Your task to perform on an android device: open app "Yahoo Mail" (install if not already installed), go to login, and select forgot password Image 0: 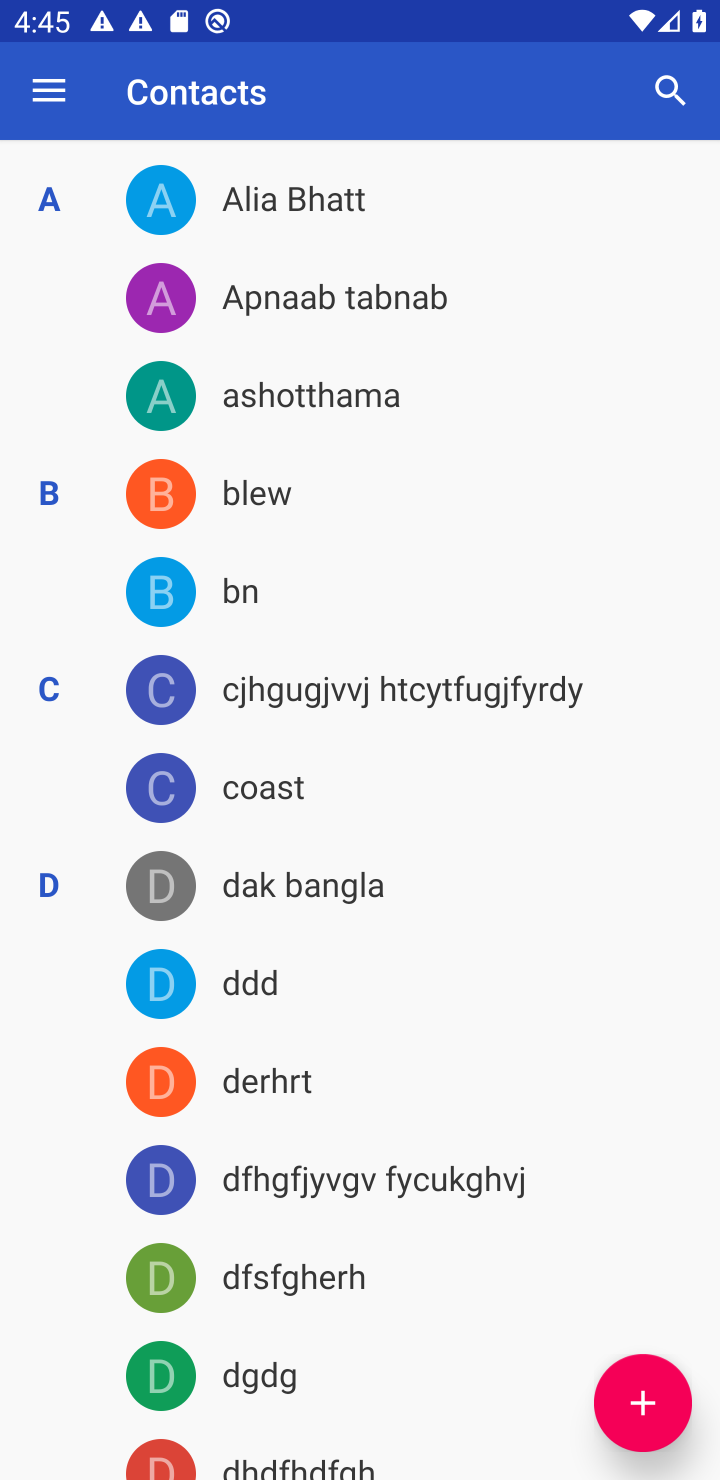
Step 0: press home button
Your task to perform on an android device: open app "Yahoo Mail" (install if not already installed), go to login, and select forgot password Image 1: 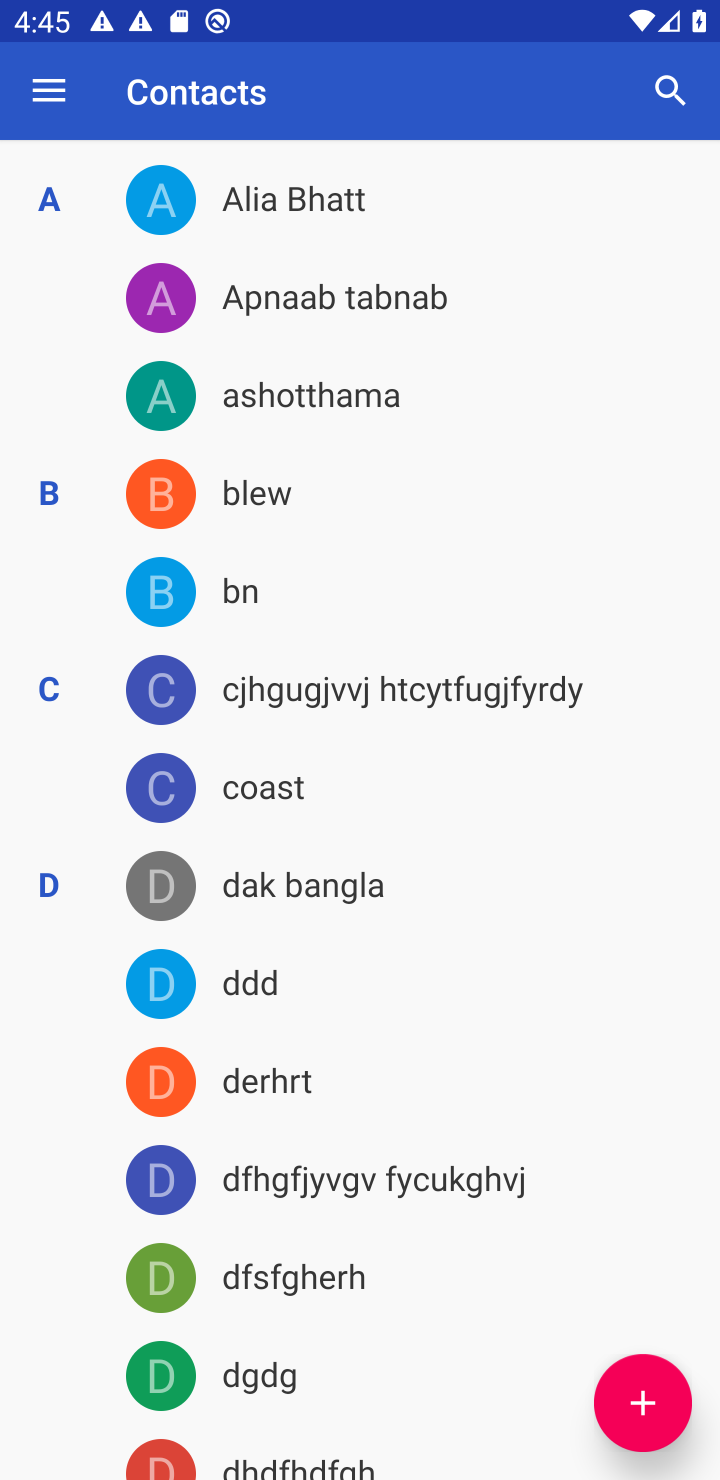
Step 1: press back button
Your task to perform on an android device: open app "Yahoo Mail" (install if not already installed), go to login, and select forgot password Image 2: 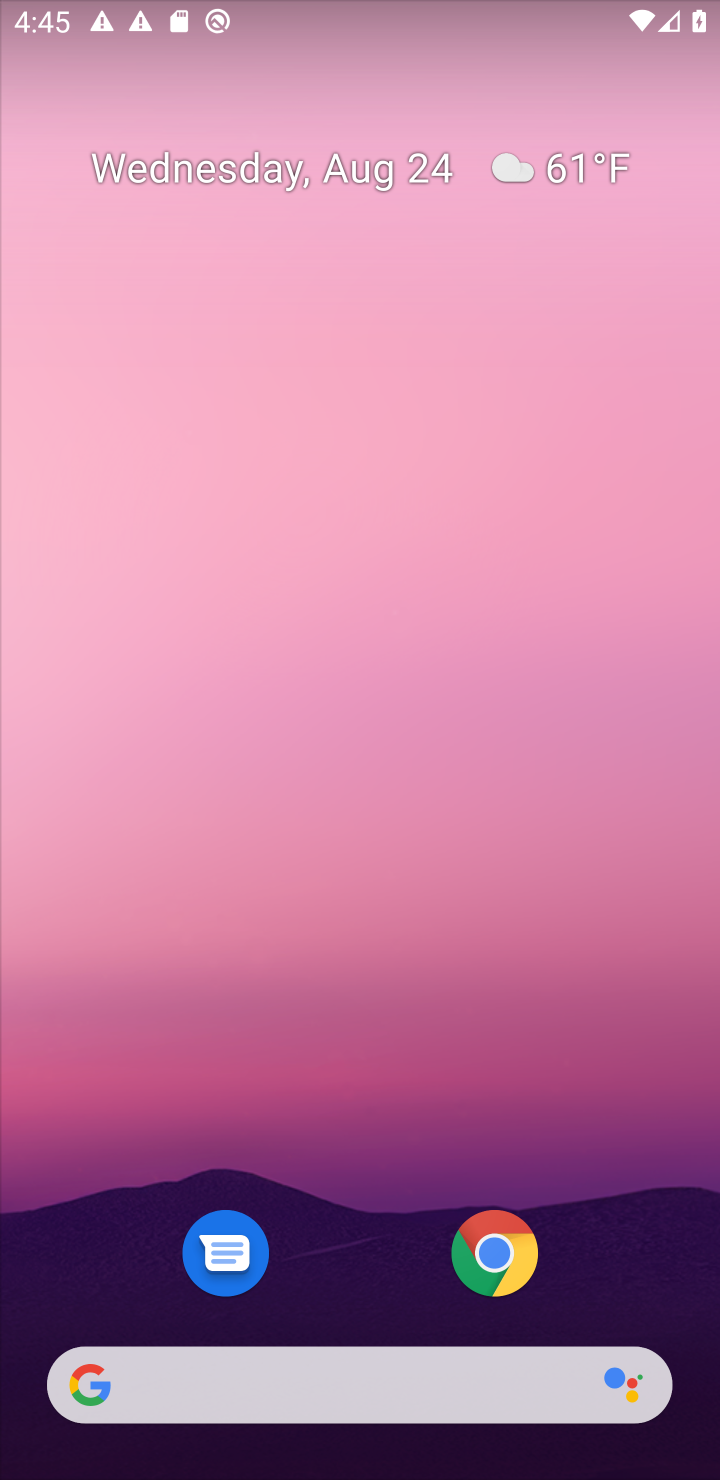
Step 2: drag from (405, 1320) to (636, 97)
Your task to perform on an android device: open app "Yahoo Mail" (install if not already installed), go to login, and select forgot password Image 3: 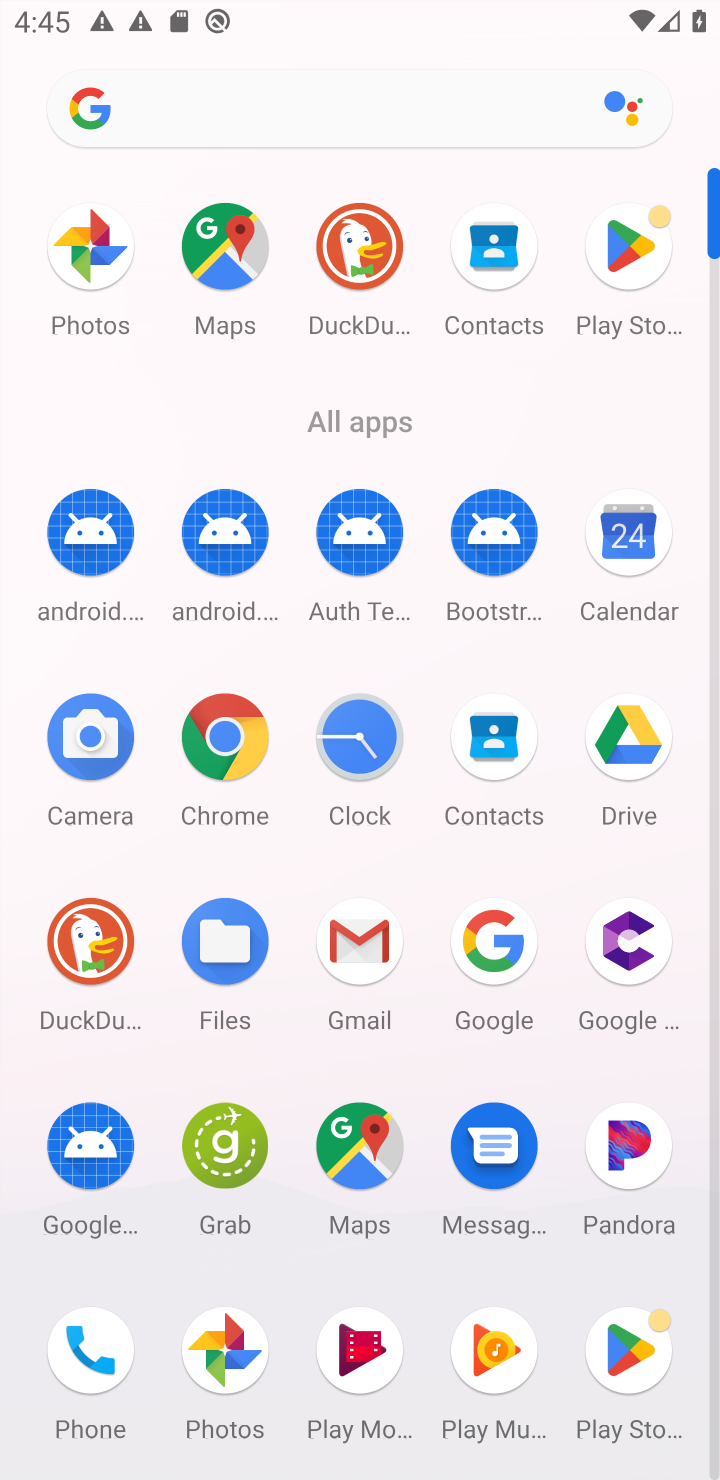
Step 3: click (651, 234)
Your task to perform on an android device: open app "Yahoo Mail" (install if not already installed), go to login, and select forgot password Image 4: 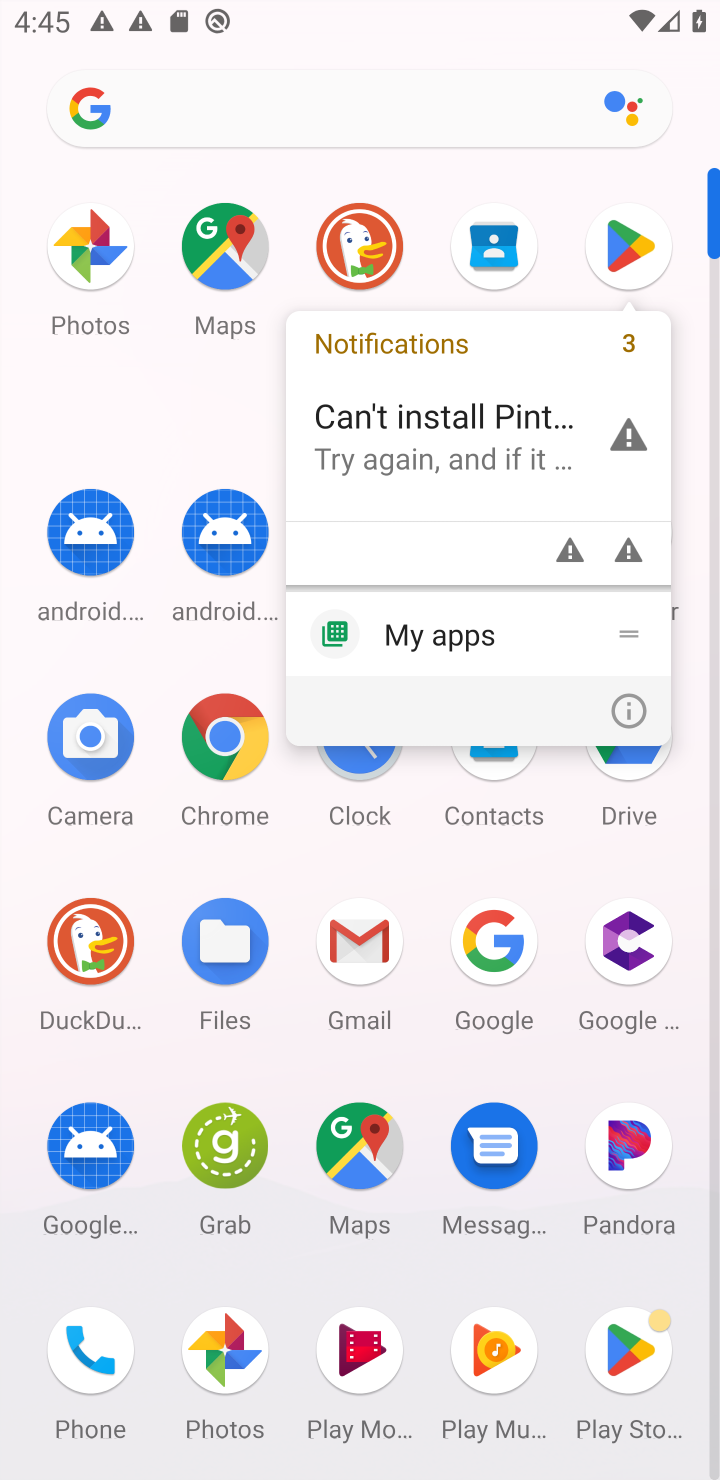
Step 4: click (624, 239)
Your task to perform on an android device: open app "Yahoo Mail" (install if not already installed), go to login, and select forgot password Image 5: 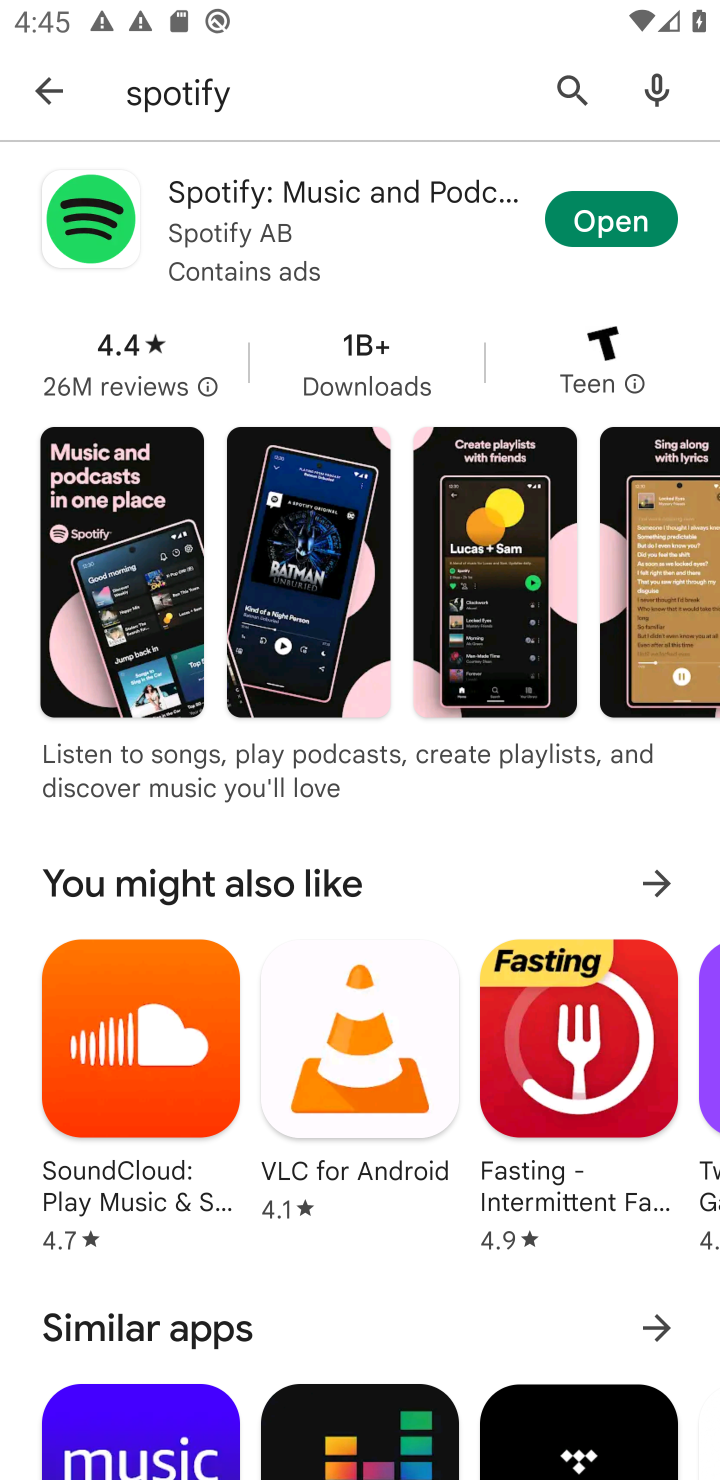
Step 5: click (586, 75)
Your task to perform on an android device: open app "Yahoo Mail" (install if not already installed), go to login, and select forgot password Image 6: 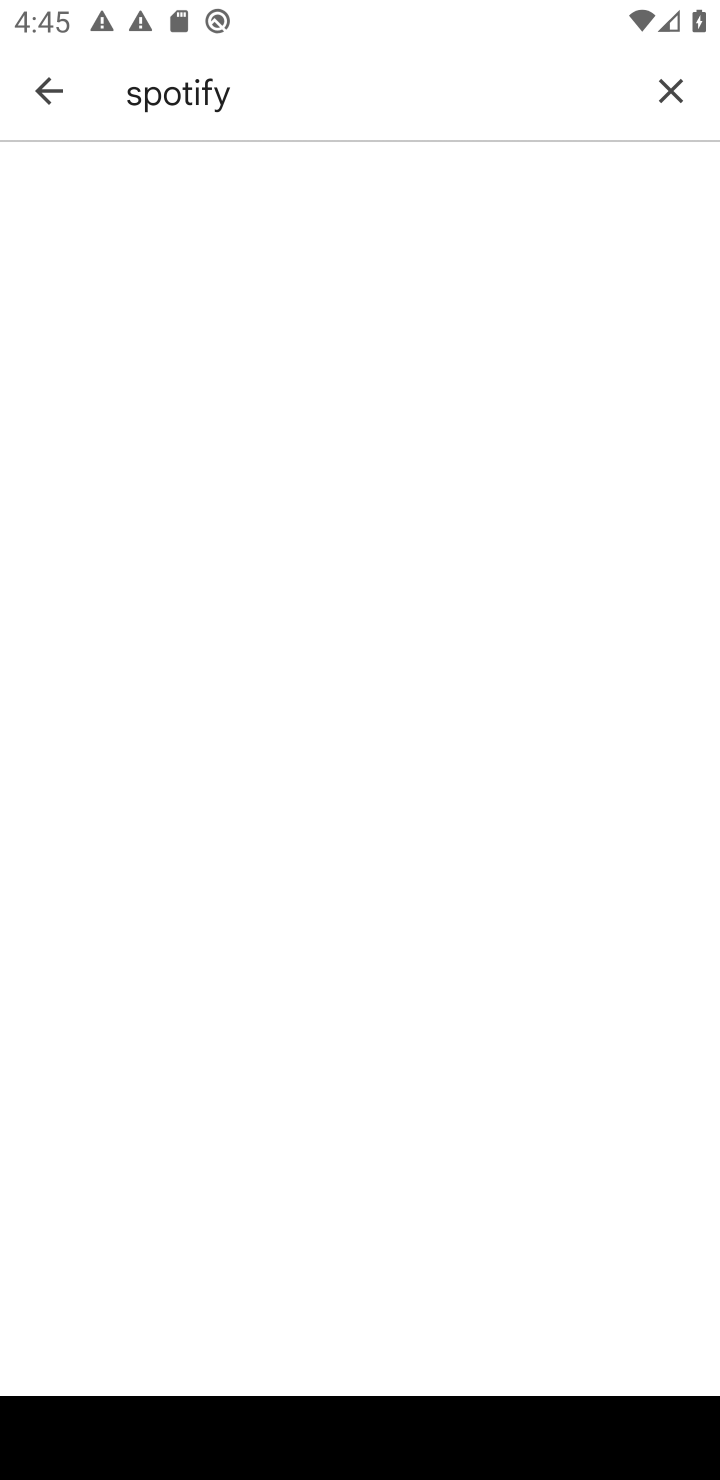
Step 6: click (662, 83)
Your task to perform on an android device: open app "Yahoo Mail" (install if not already installed), go to login, and select forgot password Image 7: 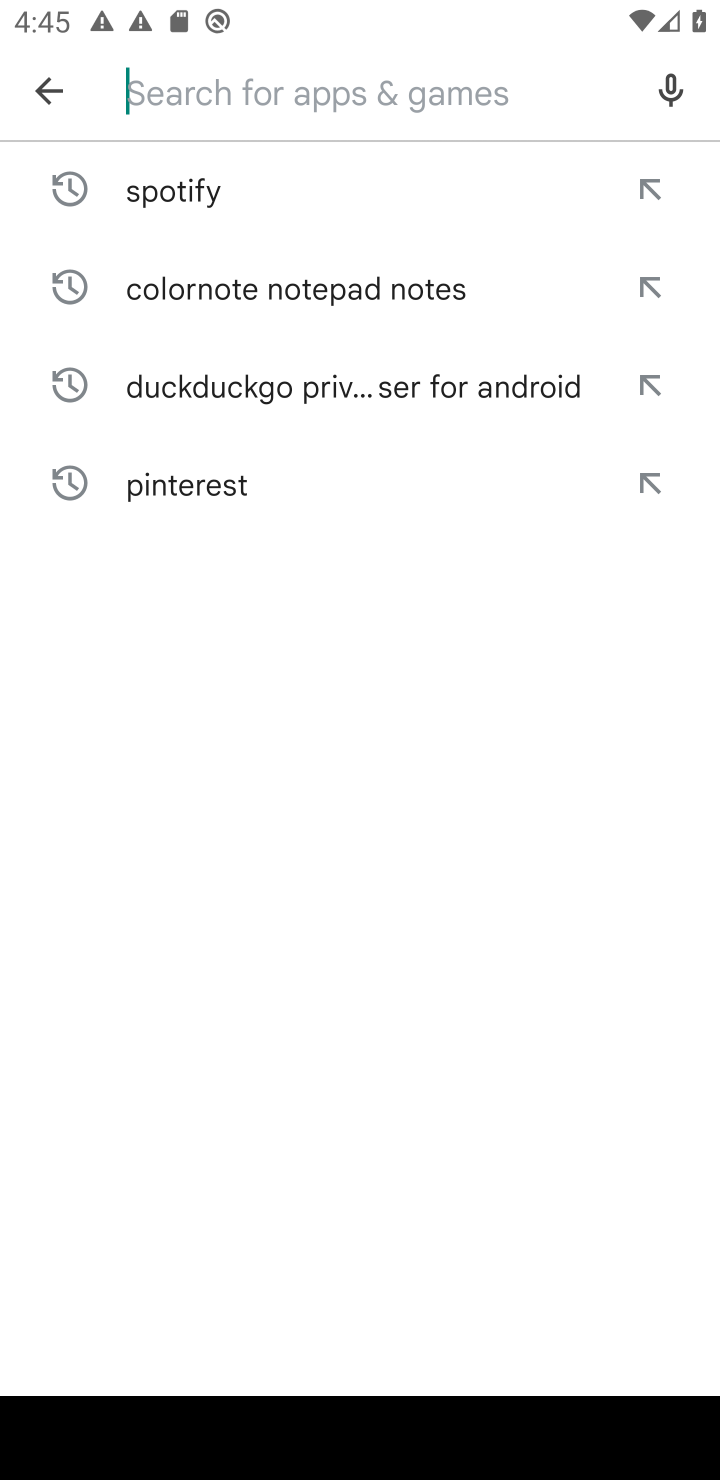
Step 7: click (220, 86)
Your task to perform on an android device: open app "Yahoo Mail" (install if not already installed), go to login, and select forgot password Image 8: 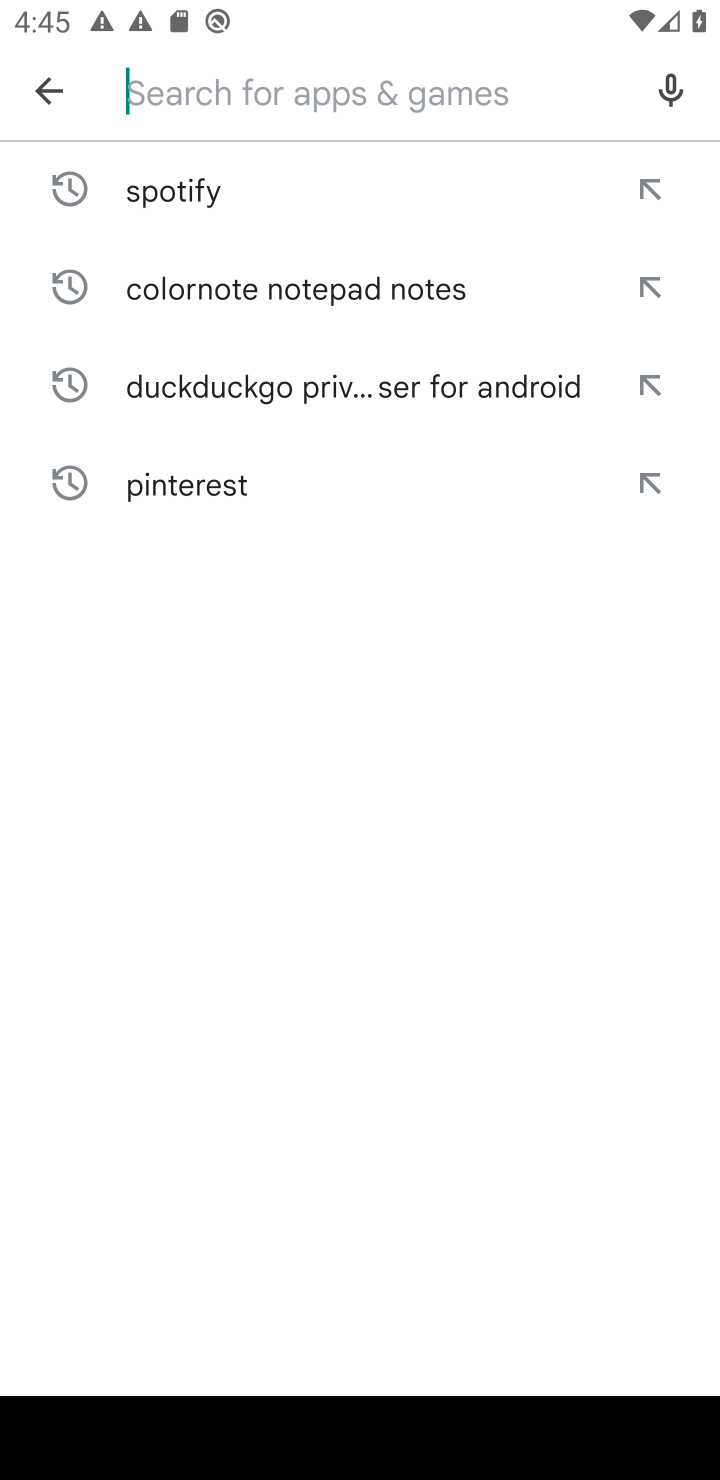
Step 8: type "Yahoo Mail"
Your task to perform on an android device: open app "Yahoo Mail" (install if not already installed), go to login, and select forgot password Image 9: 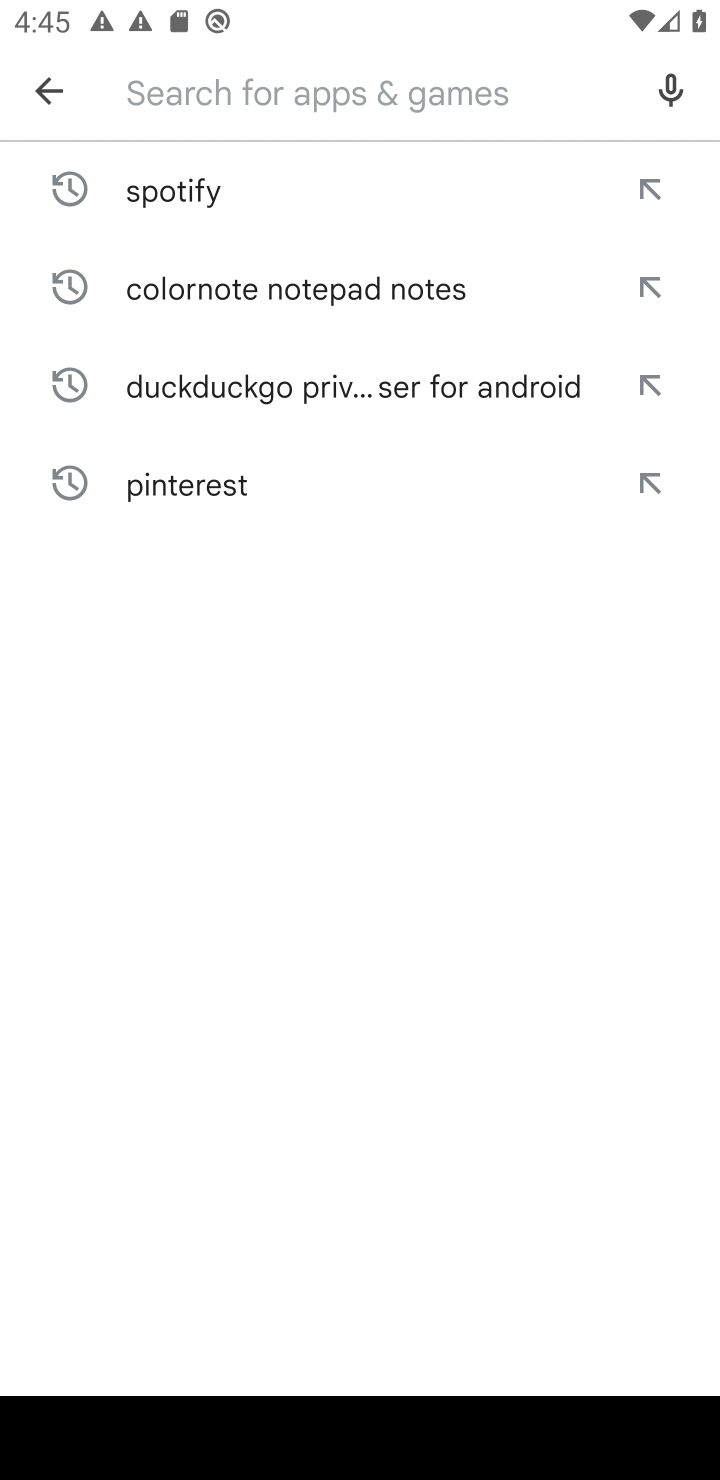
Step 9: click (351, 935)
Your task to perform on an android device: open app "Yahoo Mail" (install if not already installed), go to login, and select forgot password Image 10: 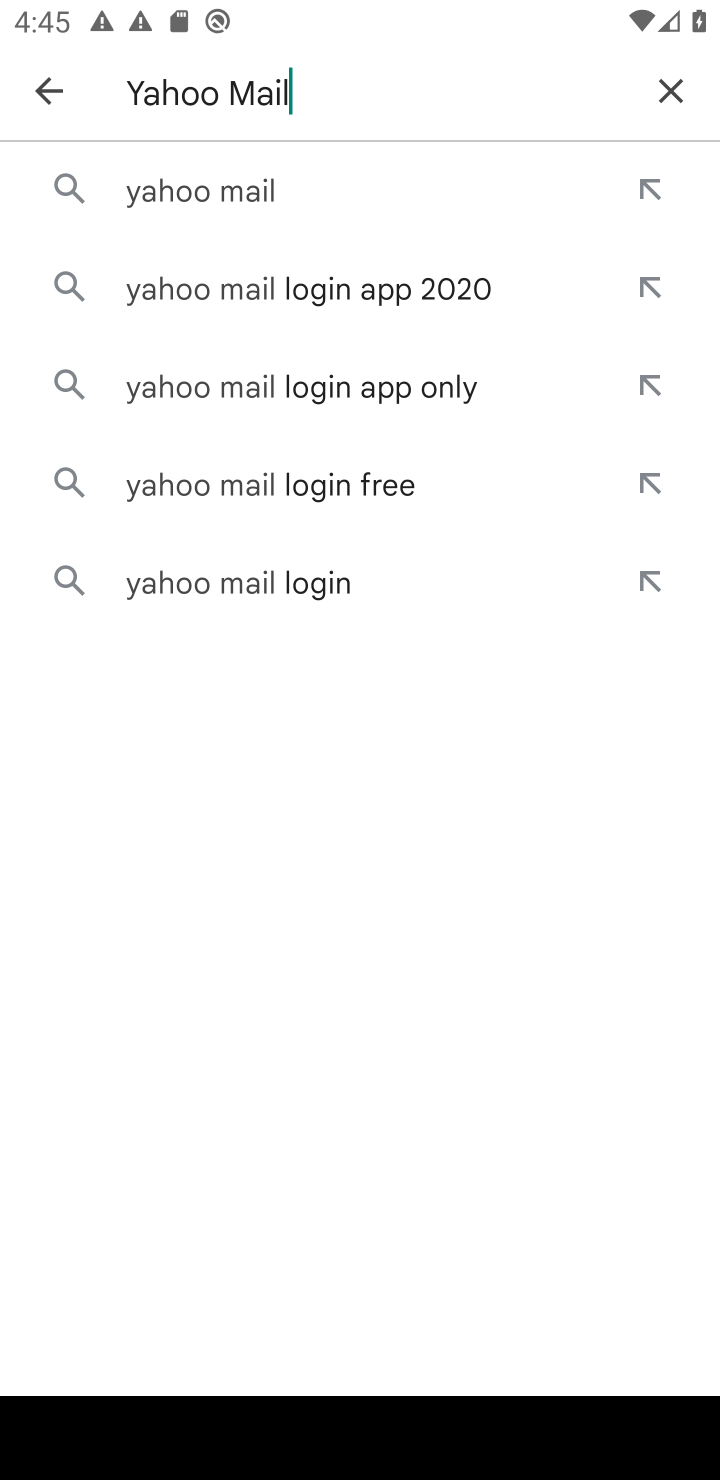
Step 10: click (224, 174)
Your task to perform on an android device: open app "Yahoo Mail" (install if not already installed), go to login, and select forgot password Image 11: 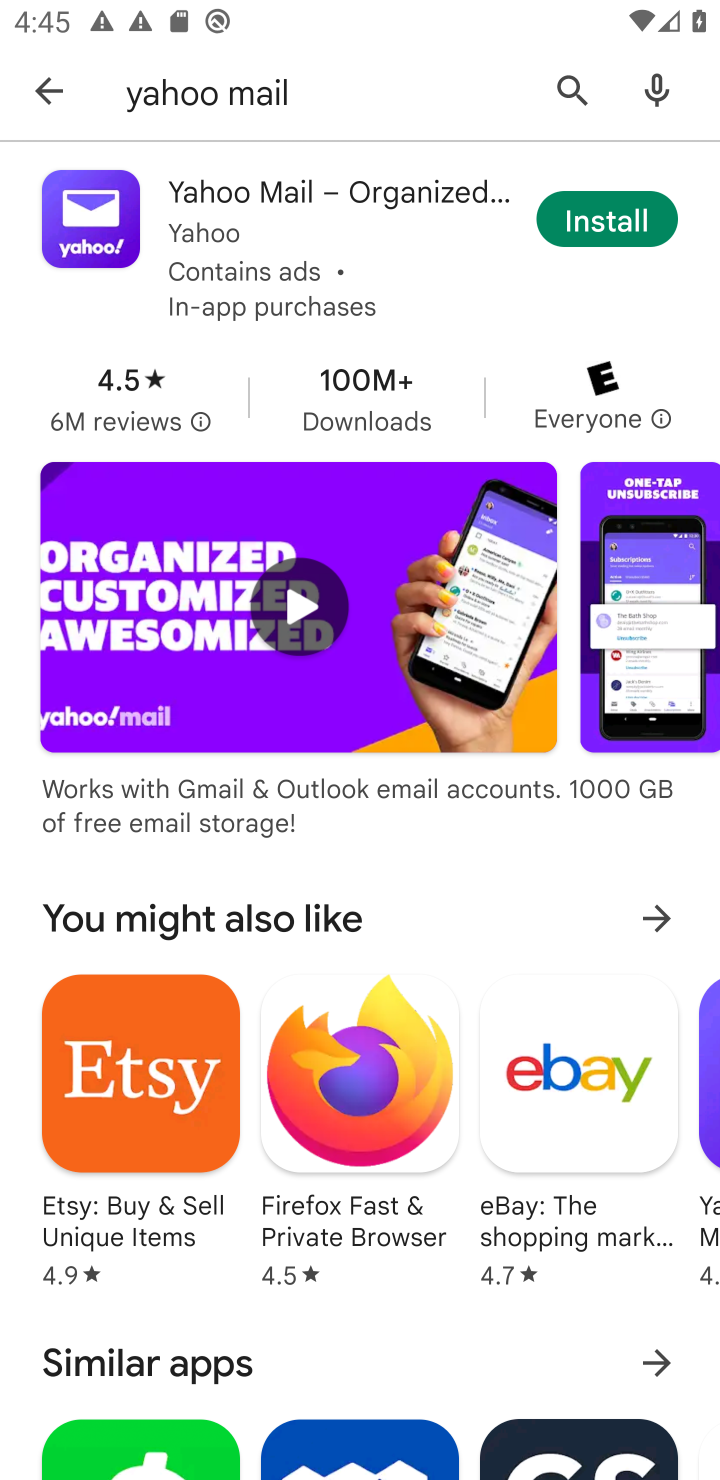
Step 11: click (620, 223)
Your task to perform on an android device: open app "Yahoo Mail" (install if not already installed), go to login, and select forgot password Image 12: 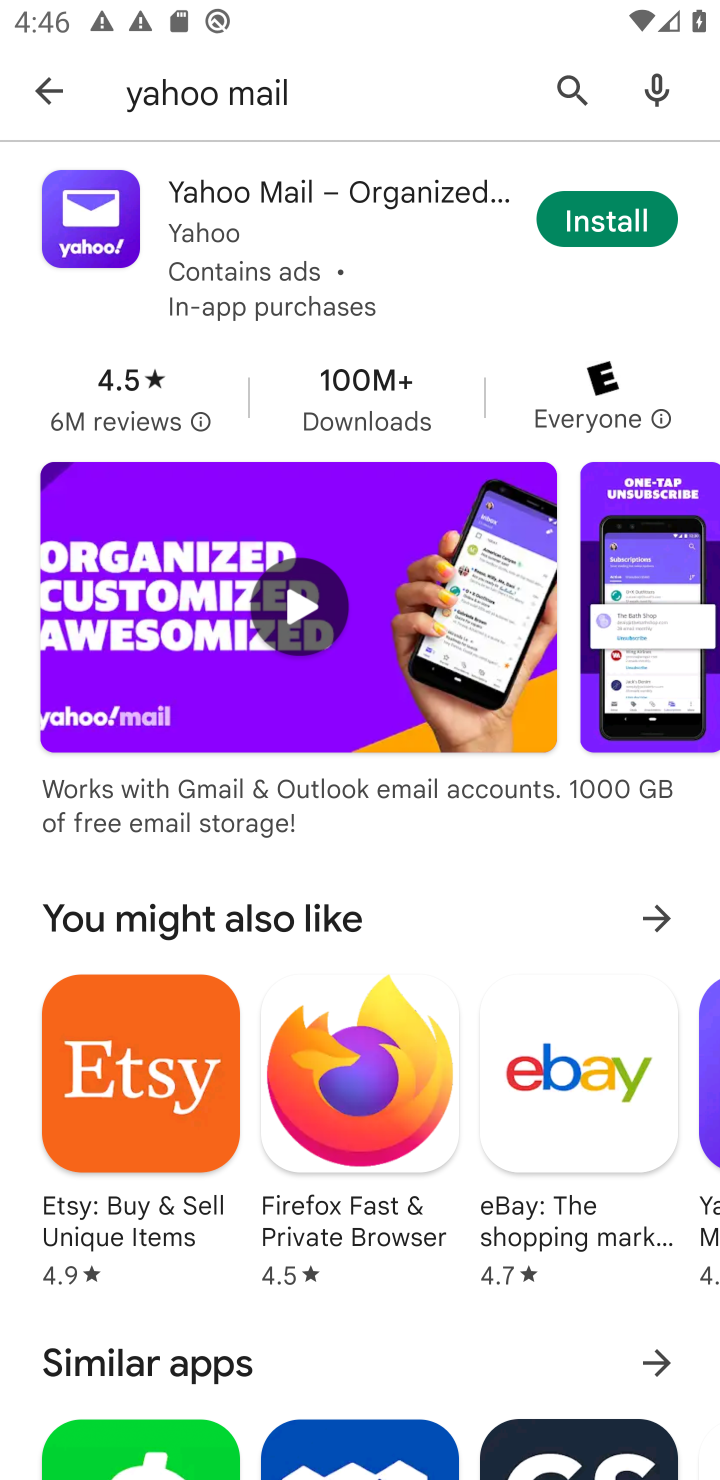
Step 12: click (608, 224)
Your task to perform on an android device: open app "Yahoo Mail" (install if not already installed), go to login, and select forgot password Image 13: 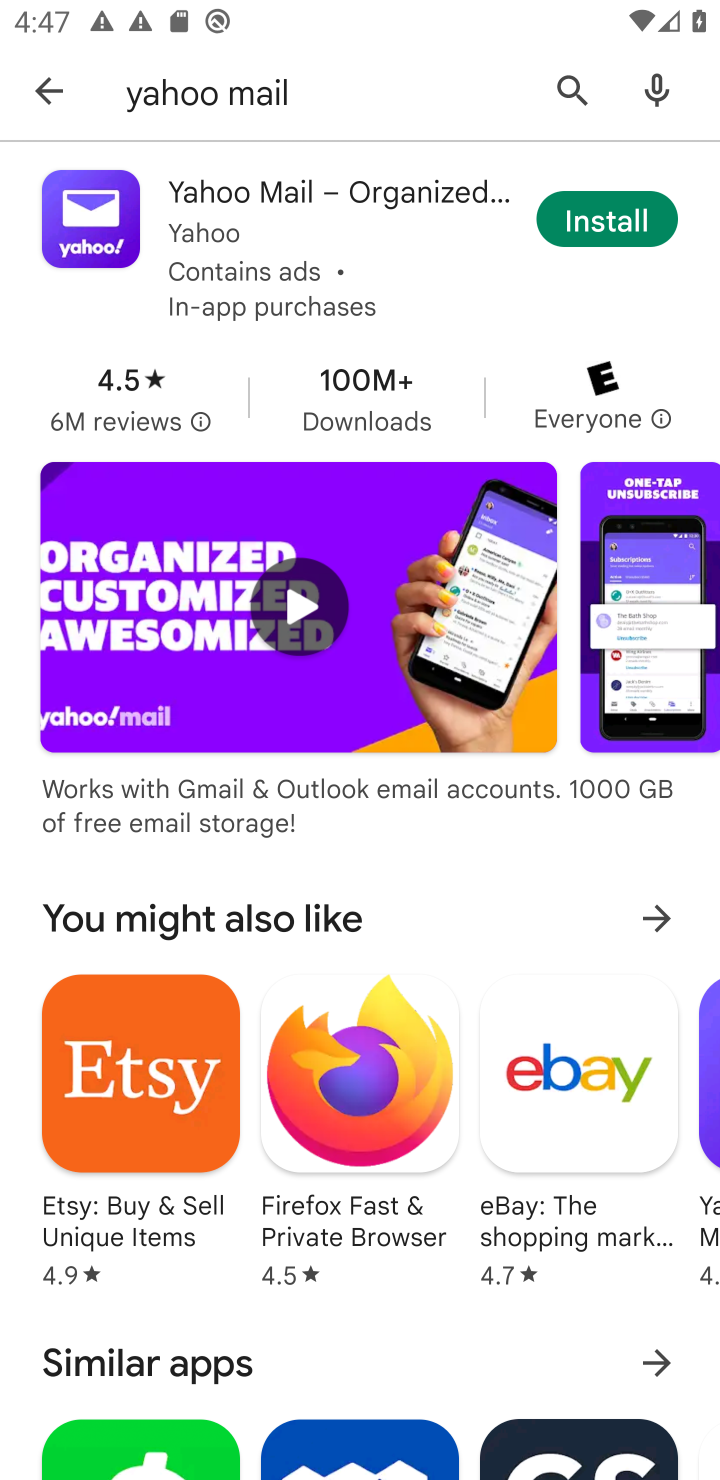
Step 13: task complete